Your task to perform on an android device: turn off priority inbox in the gmail app Image 0: 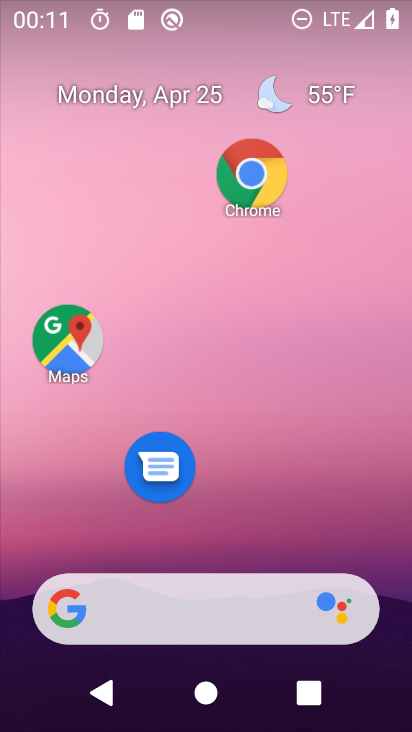
Step 0: drag from (248, 549) to (265, 90)
Your task to perform on an android device: turn off priority inbox in the gmail app Image 1: 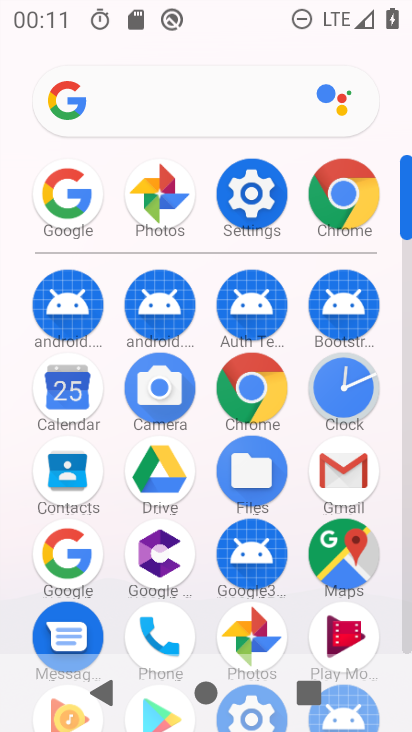
Step 1: click (341, 476)
Your task to perform on an android device: turn off priority inbox in the gmail app Image 2: 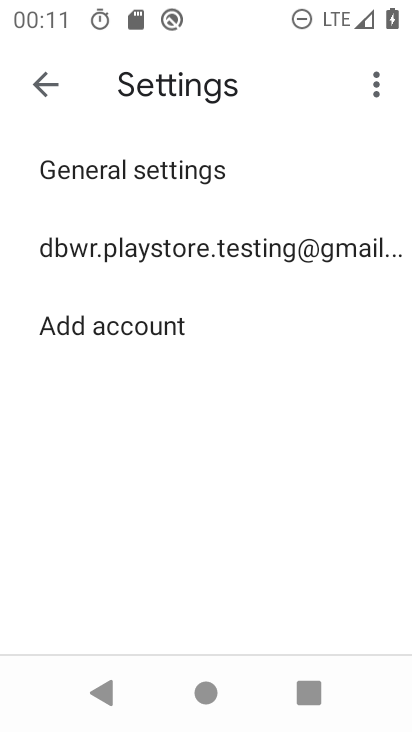
Step 2: click (199, 252)
Your task to perform on an android device: turn off priority inbox in the gmail app Image 3: 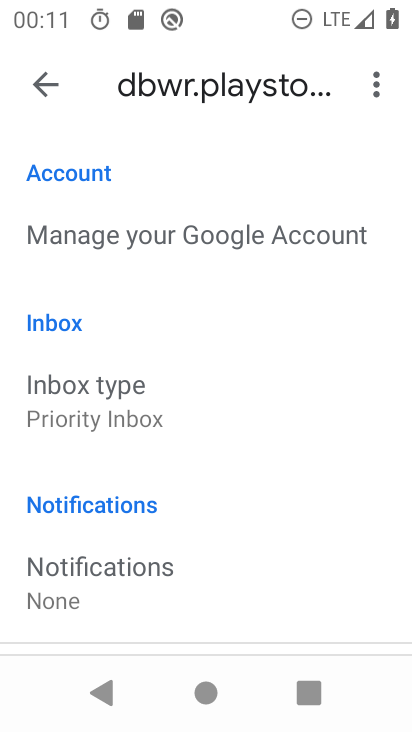
Step 3: drag from (175, 458) to (180, 346)
Your task to perform on an android device: turn off priority inbox in the gmail app Image 4: 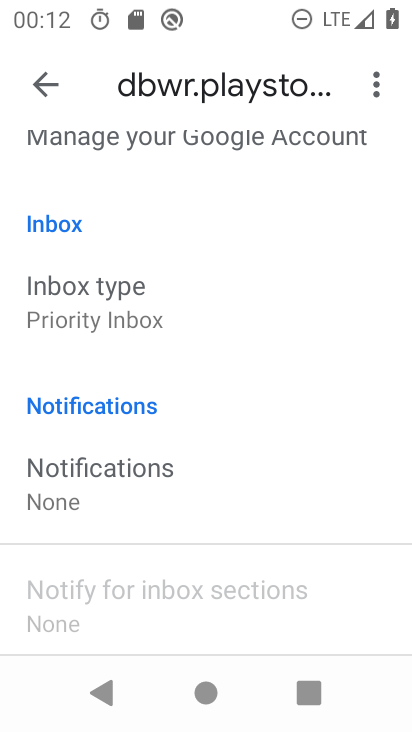
Step 4: click (166, 322)
Your task to perform on an android device: turn off priority inbox in the gmail app Image 5: 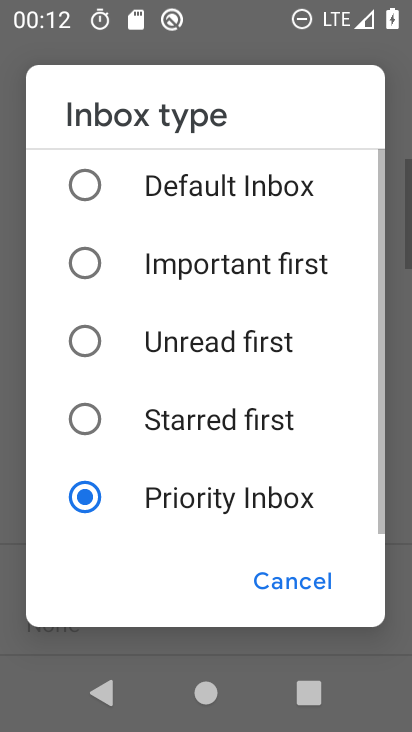
Step 5: click (106, 193)
Your task to perform on an android device: turn off priority inbox in the gmail app Image 6: 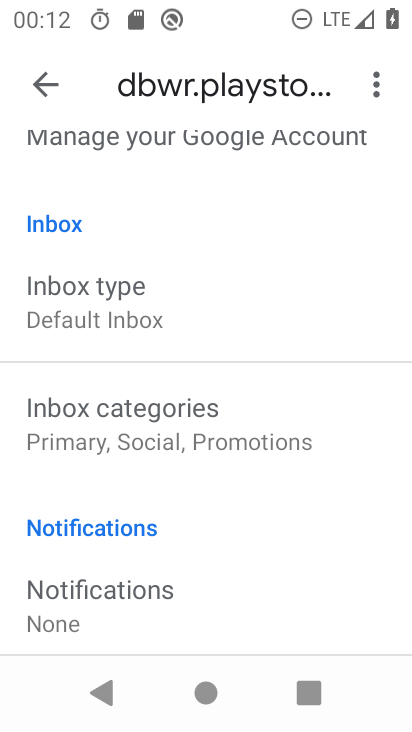
Step 6: task complete